Your task to perform on an android device: uninstall "Clock" Image 0: 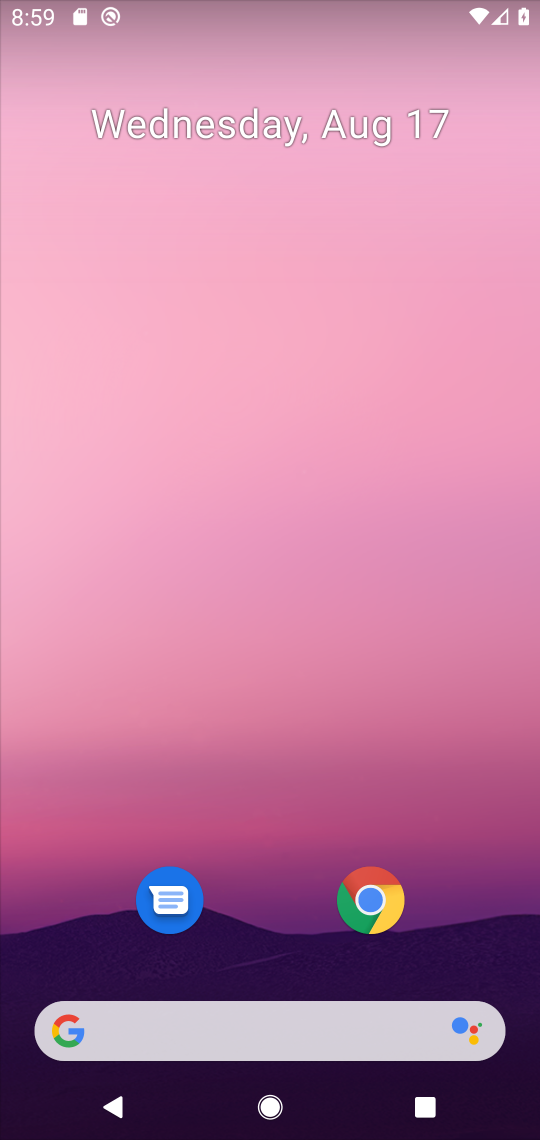
Step 0: drag from (350, 1011) to (380, 336)
Your task to perform on an android device: uninstall "Clock" Image 1: 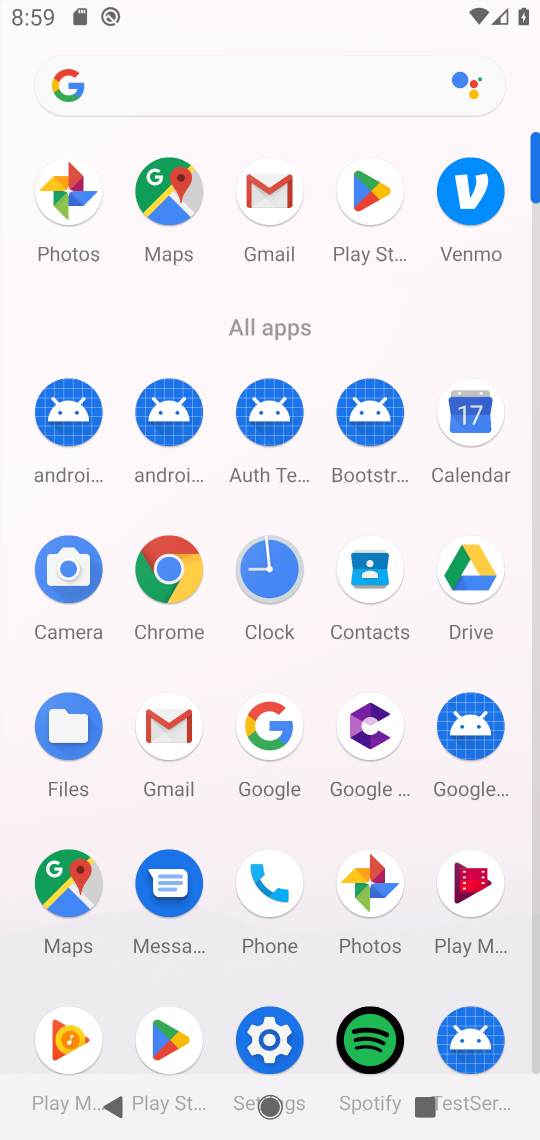
Step 1: click (272, 592)
Your task to perform on an android device: uninstall "Clock" Image 2: 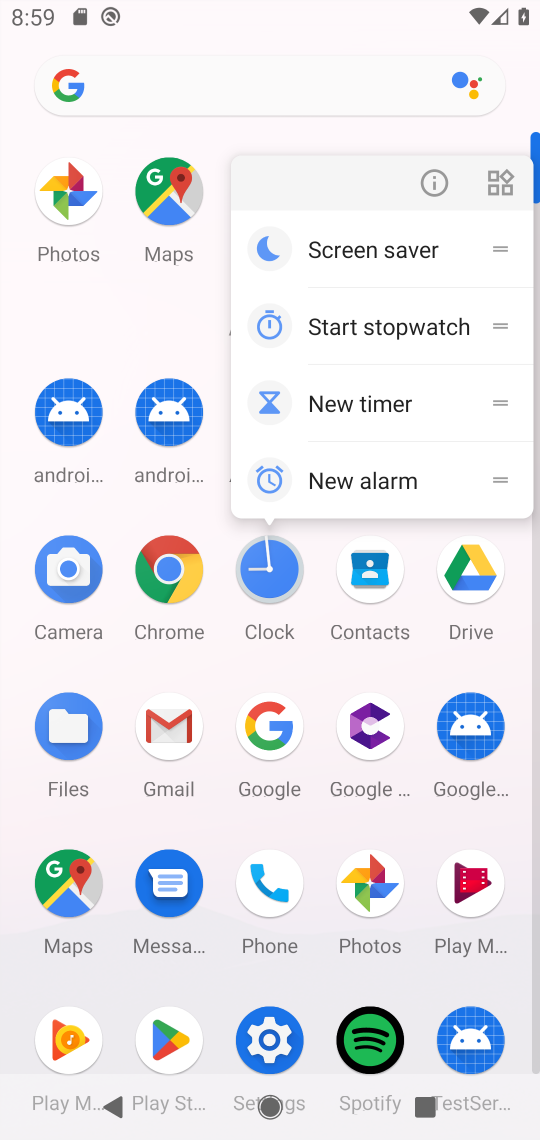
Step 2: click (419, 179)
Your task to perform on an android device: uninstall "Clock" Image 3: 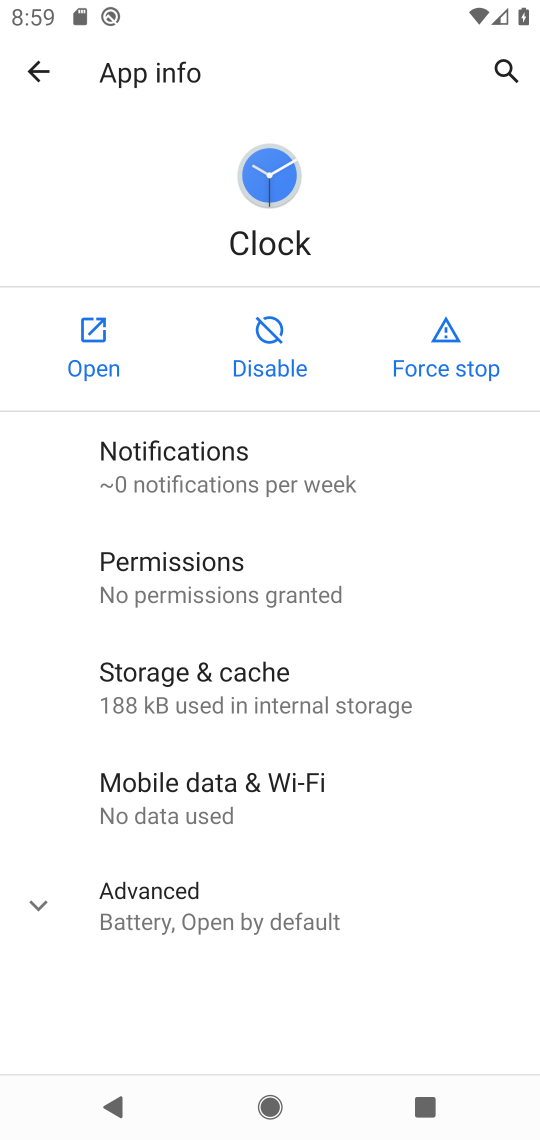
Step 3: task complete